Your task to perform on an android device: Open display settings Image 0: 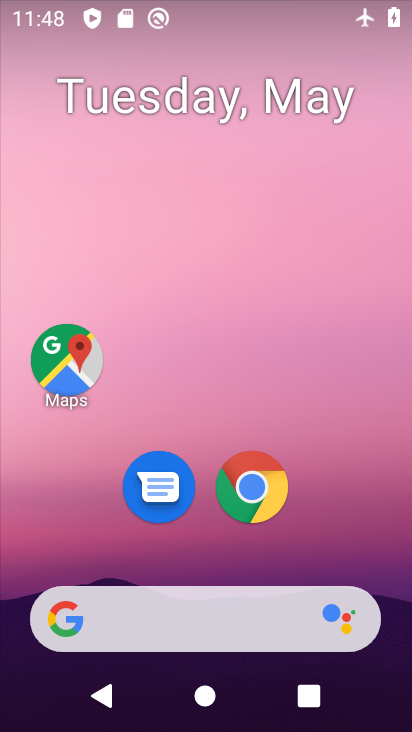
Step 0: drag from (301, 497) to (289, 94)
Your task to perform on an android device: Open display settings Image 1: 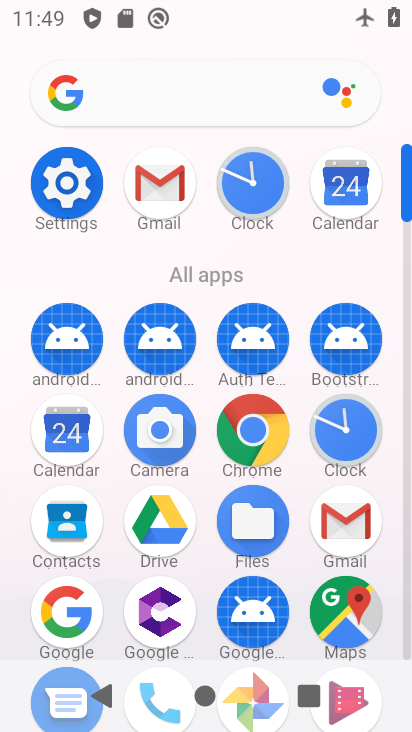
Step 1: click (71, 190)
Your task to perform on an android device: Open display settings Image 2: 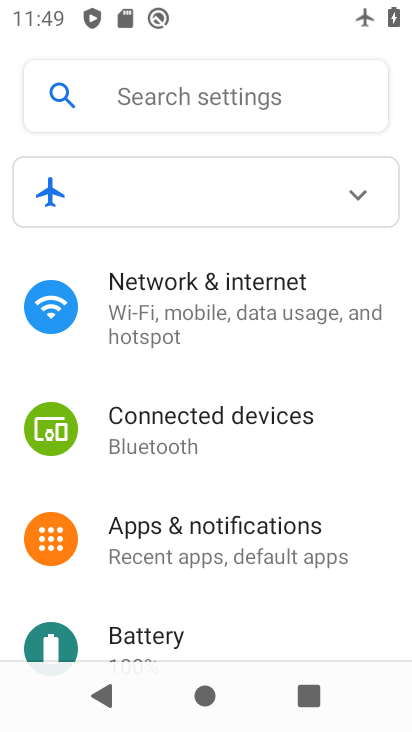
Step 2: drag from (260, 632) to (294, 231)
Your task to perform on an android device: Open display settings Image 3: 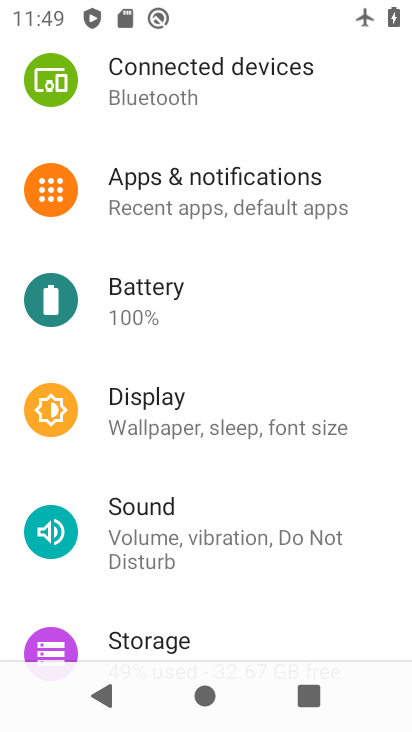
Step 3: drag from (257, 601) to (287, 95)
Your task to perform on an android device: Open display settings Image 4: 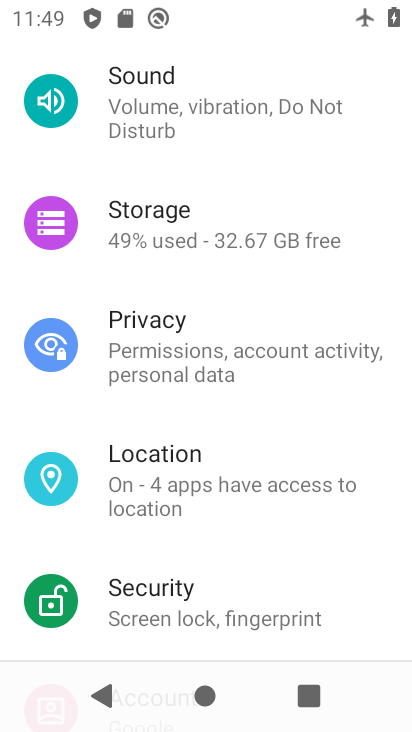
Step 4: drag from (244, 546) to (291, 149)
Your task to perform on an android device: Open display settings Image 5: 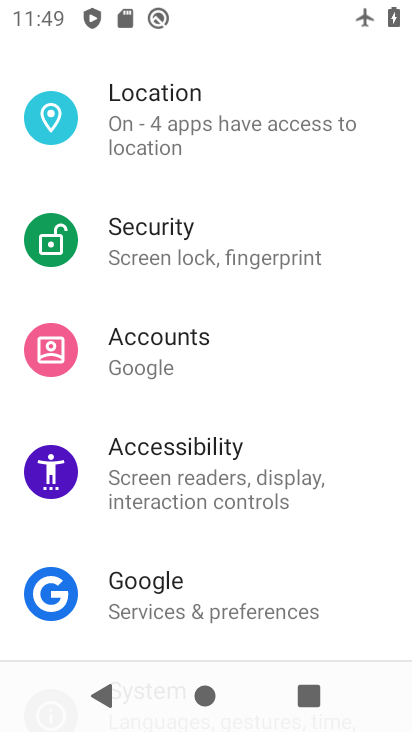
Step 5: drag from (251, 166) to (239, 537)
Your task to perform on an android device: Open display settings Image 6: 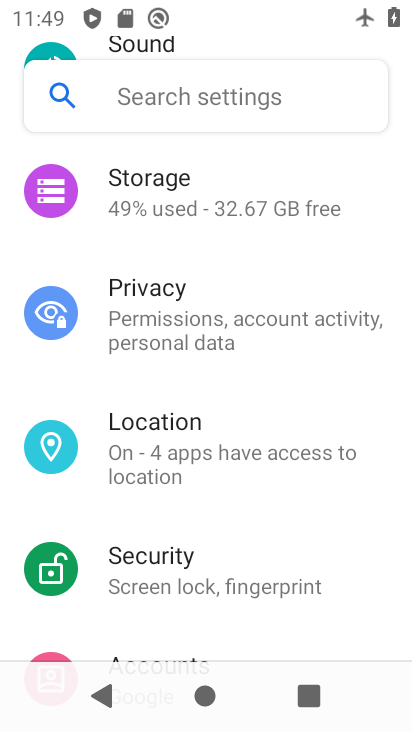
Step 6: drag from (188, 306) to (178, 544)
Your task to perform on an android device: Open display settings Image 7: 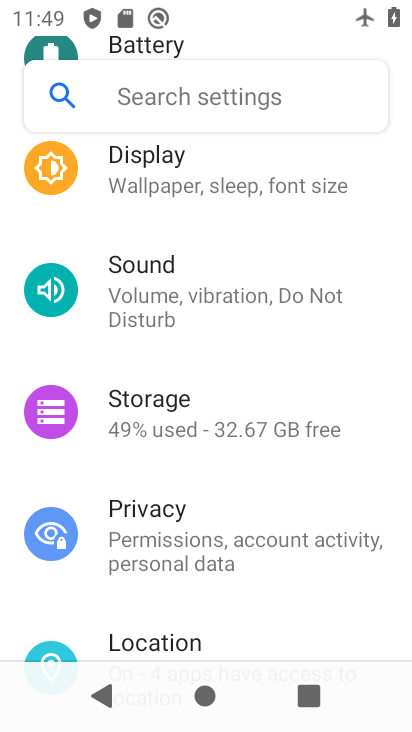
Step 7: click (187, 185)
Your task to perform on an android device: Open display settings Image 8: 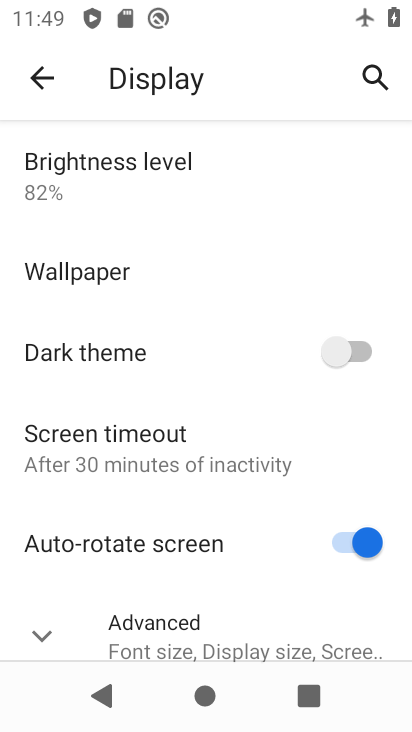
Step 8: task complete